Your task to perform on an android device: Is it going to rain this weekend? Image 0: 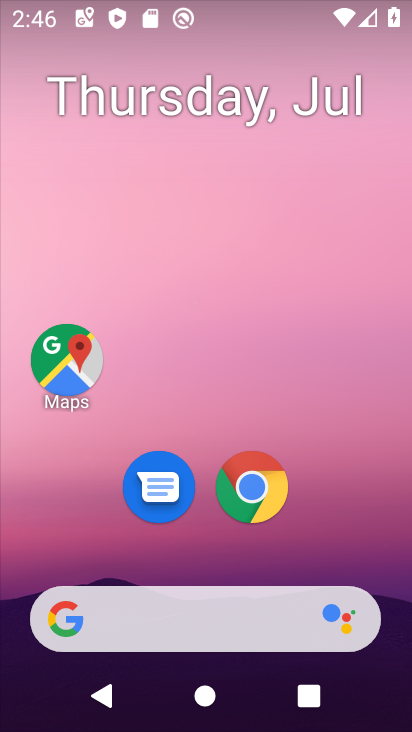
Step 0: click (196, 613)
Your task to perform on an android device: Is it going to rain this weekend? Image 1: 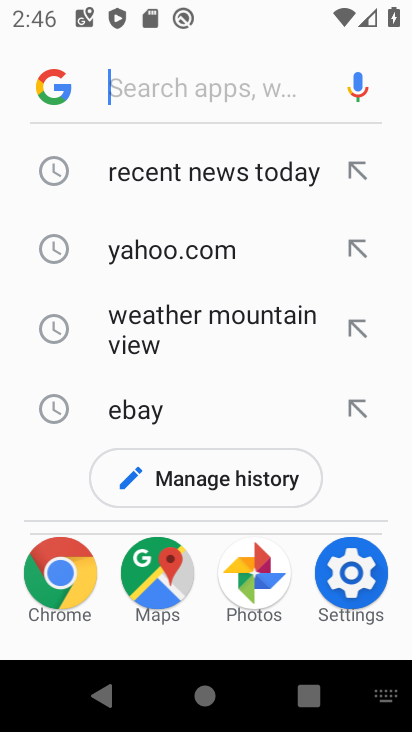
Step 1: click (226, 328)
Your task to perform on an android device: Is it going to rain this weekend? Image 2: 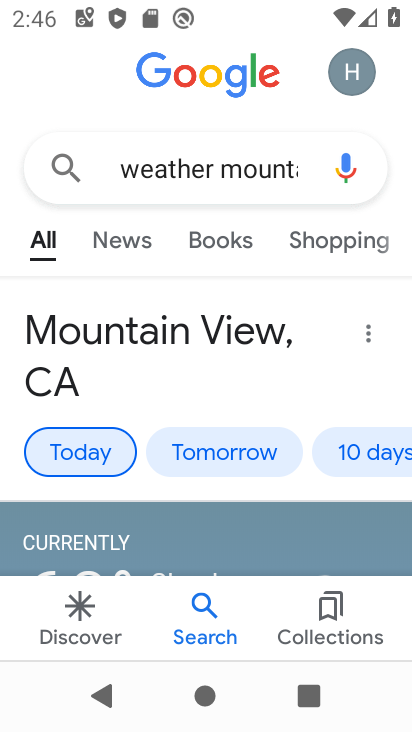
Step 2: click (364, 451)
Your task to perform on an android device: Is it going to rain this weekend? Image 3: 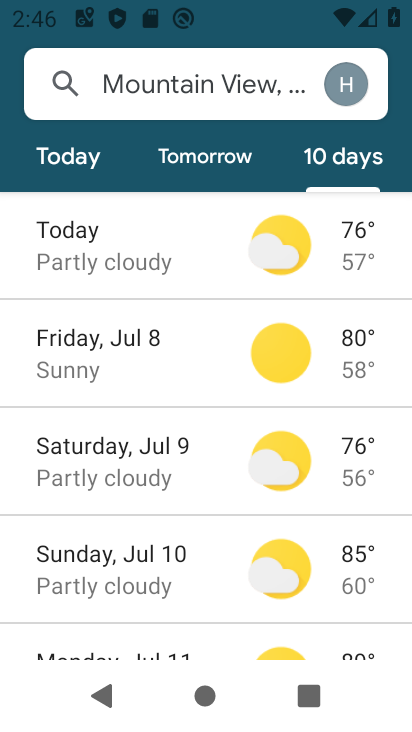
Step 3: drag from (217, 537) to (204, 287)
Your task to perform on an android device: Is it going to rain this weekend? Image 4: 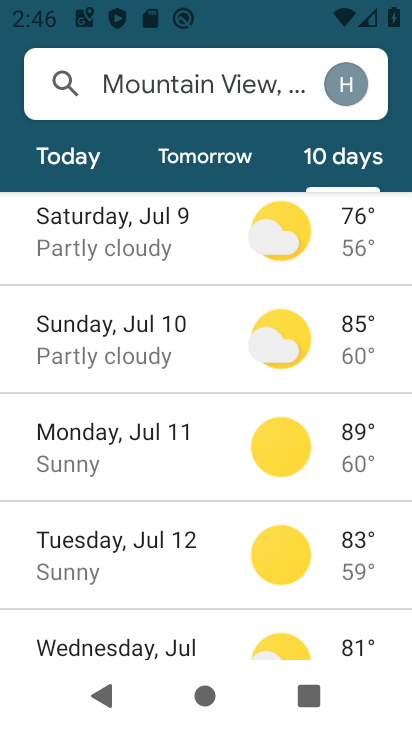
Step 4: click (172, 239)
Your task to perform on an android device: Is it going to rain this weekend? Image 5: 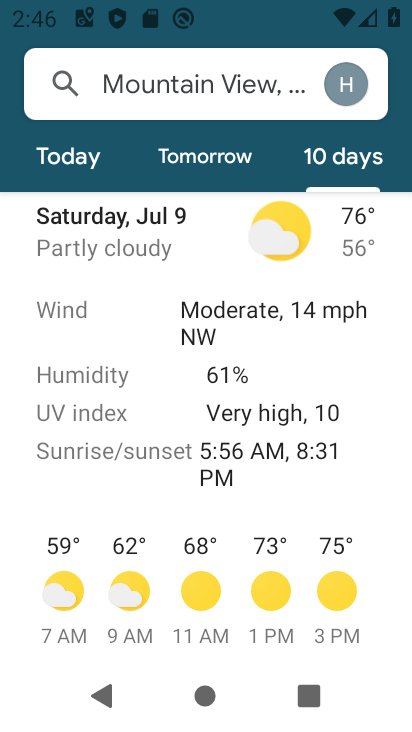
Step 5: task complete